Your task to perform on an android device: choose inbox layout in the gmail app Image 0: 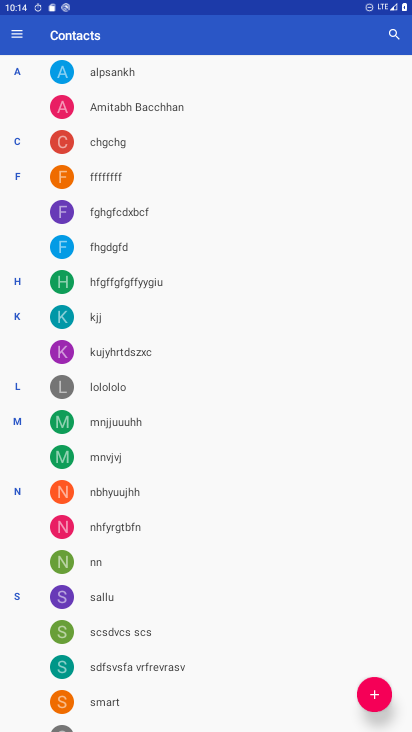
Step 0: press home button
Your task to perform on an android device: choose inbox layout in the gmail app Image 1: 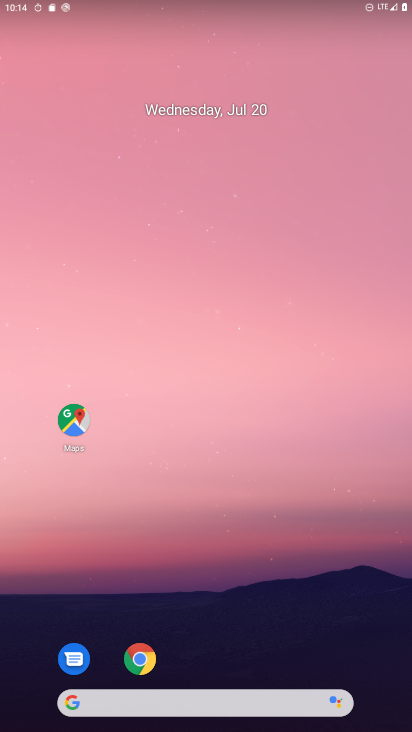
Step 1: drag from (287, 623) to (291, 10)
Your task to perform on an android device: choose inbox layout in the gmail app Image 2: 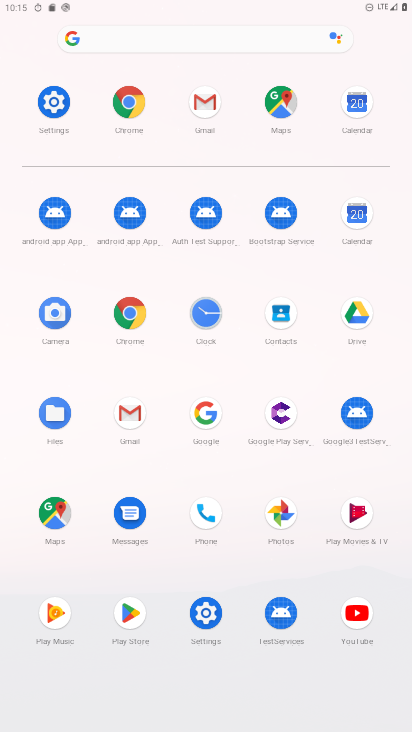
Step 2: click (197, 101)
Your task to perform on an android device: choose inbox layout in the gmail app Image 3: 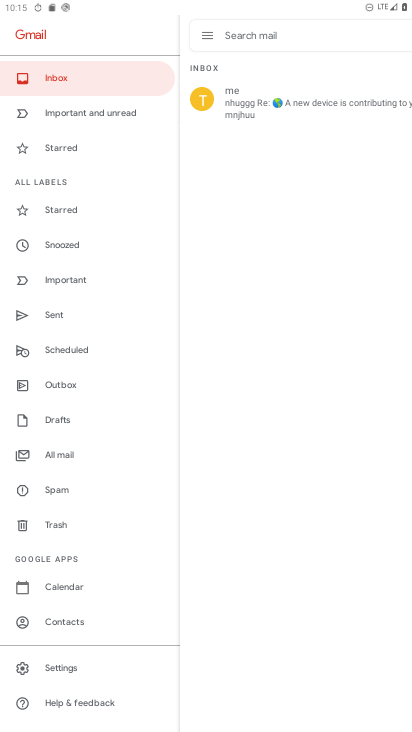
Step 3: click (75, 671)
Your task to perform on an android device: choose inbox layout in the gmail app Image 4: 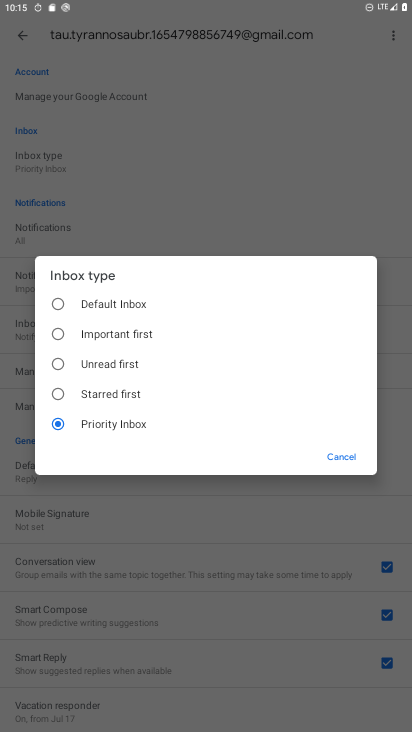
Step 4: task complete